Your task to perform on an android device: change the clock display to analog Image 0: 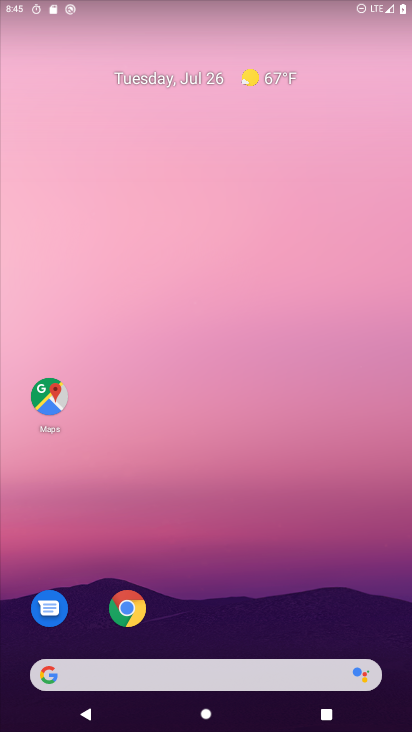
Step 0: drag from (237, 632) to (299, 137)
Your task to perform on an android device: change the clock display to analog Image 1: 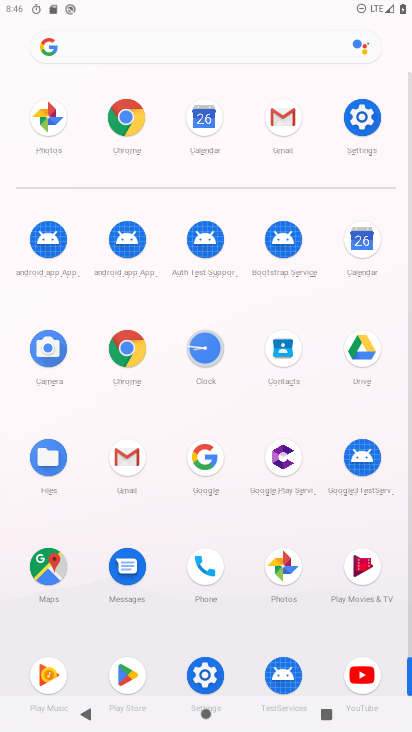
Step 1: click (207, 359)
Your task to perform on an android device: change the clock display to analog Image 2: 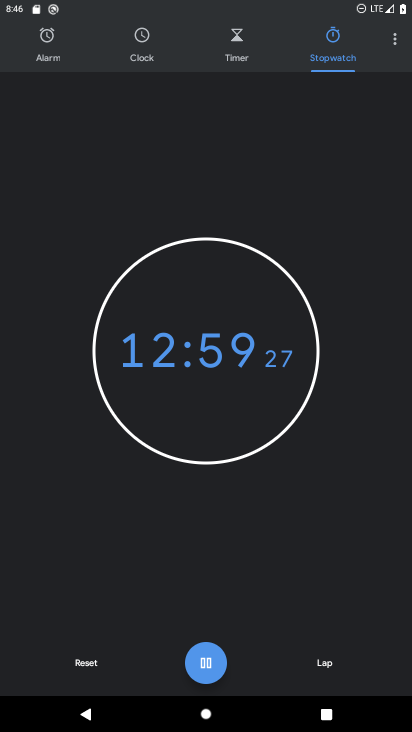
Step 2: click (394, 39)
Your task to perform on an android device: change the clock display to analog Image 3: 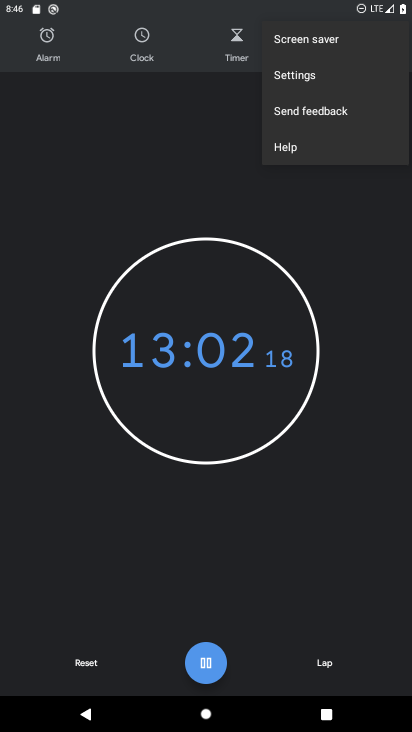
Step 3: click (310, 75)
Your task to perform on an android device: change the clock display to analog Image 4: 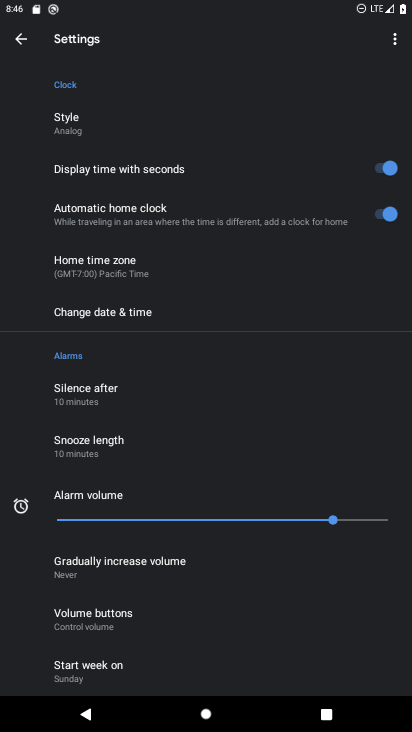
Step 4: click (92, 131)
Your task to perform on an android device: change the clock display to analog Image 5: 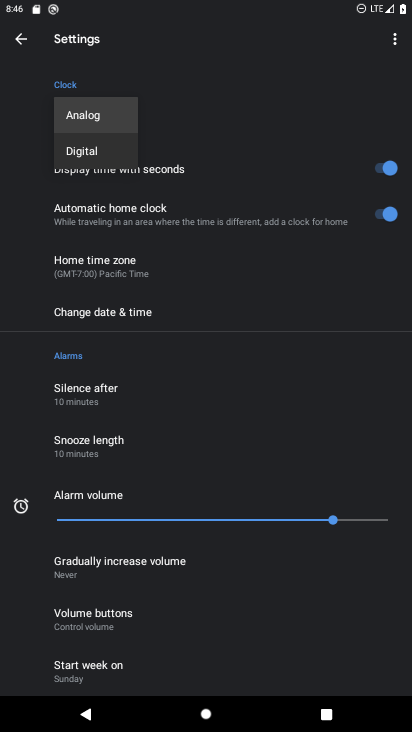
Step 5: task complete